Your task to perform on an android device: set default search engine in the chrome app Image 0: 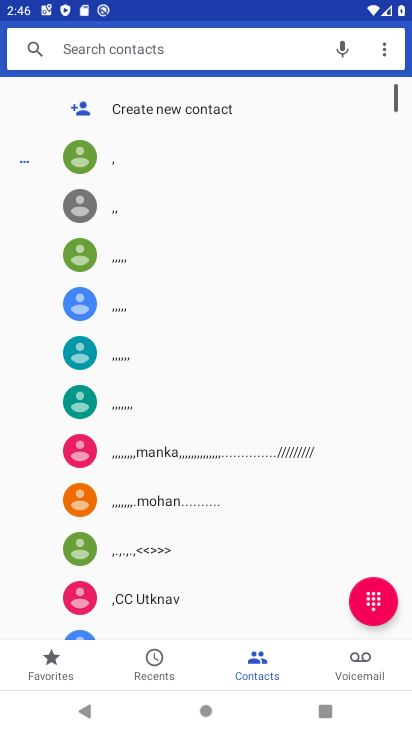
Step 0: press home button
Your task to perform on an android device: set default search engine in the chrome app Image 1: 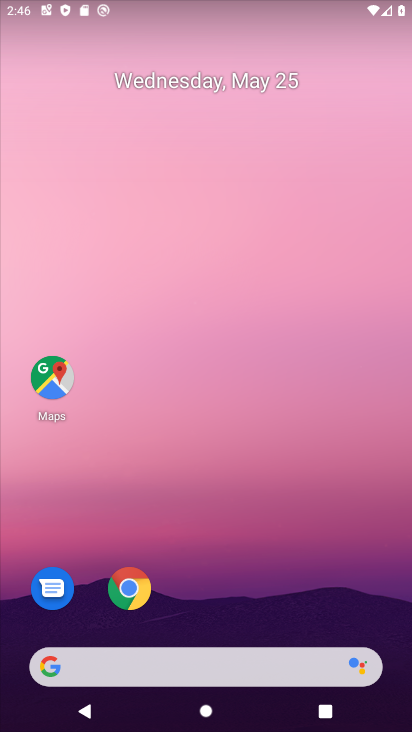
Step 1: drag from (218, 680) to (347, 126)
Your task to perform on an android device: set default search engine in the chrome app Image 2: 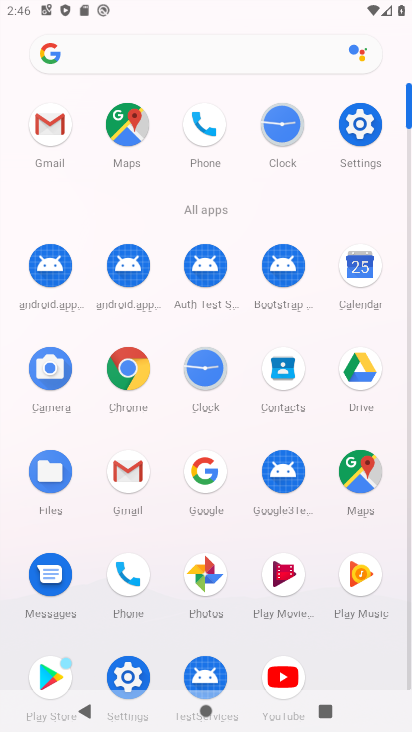
Step 2: click (126, 361)
Your task to perform on an android device: set default search engine in the chrome app Image 3: 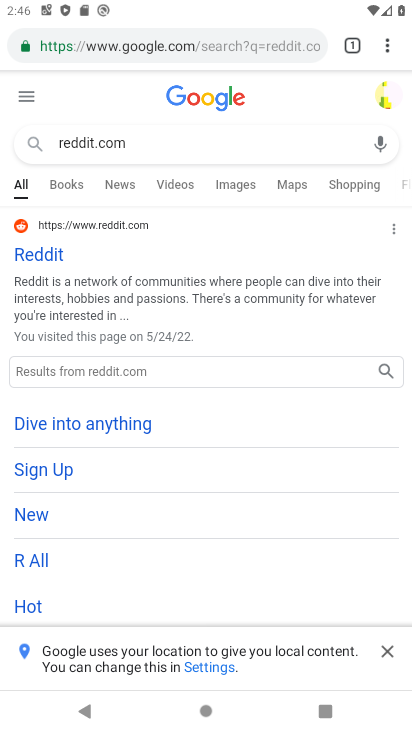
Step 3: click (388, 54)
Your task to perform on an android device: set default search engine in the chrome app Image 4: 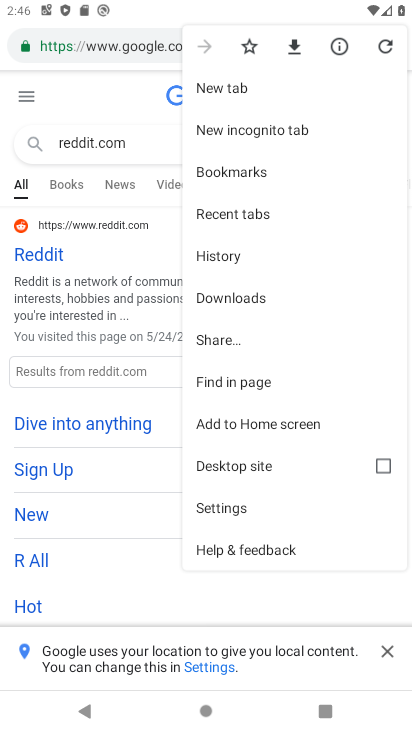
Step 4: click (253, 505)
Your task to perform on an android device: set default search engine in the chrome app Image 5: 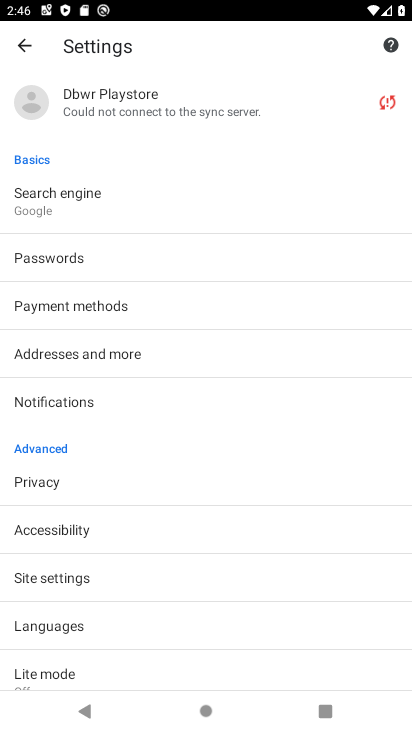
Step 5: click (81, 200)
Your task to perform on an android device: set default search engine in the chrome app Image 6: 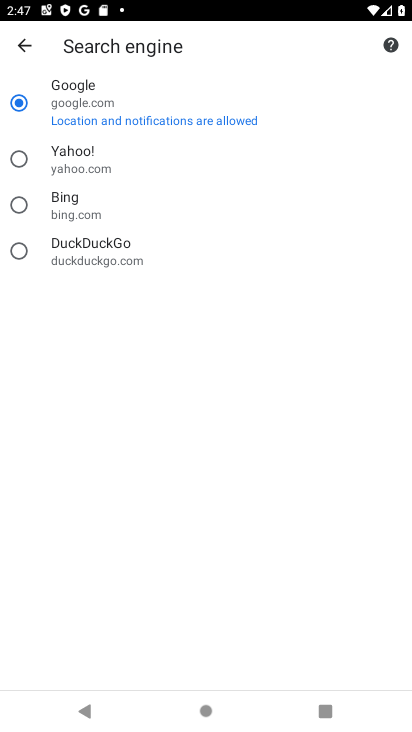
Step 6: task complete